Your task to perform on an android device: Open the calendar app, open the side menu, and click the "Day" option Image 0: 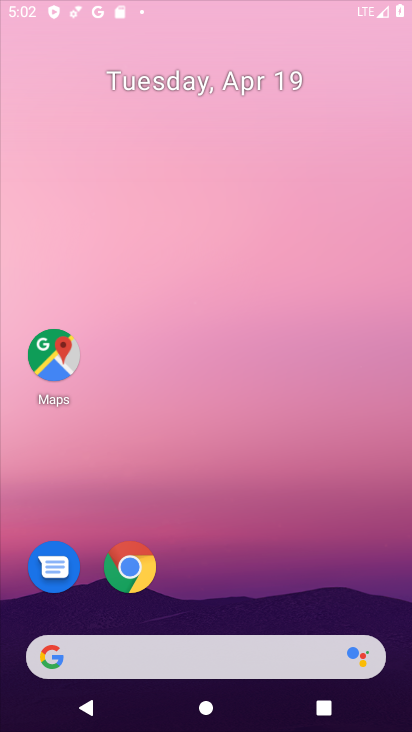
Step 0: click (299, 2)
Your task to perform on an android device: Open the calendar app, open the side menu, and click the "Day" option Image 1: 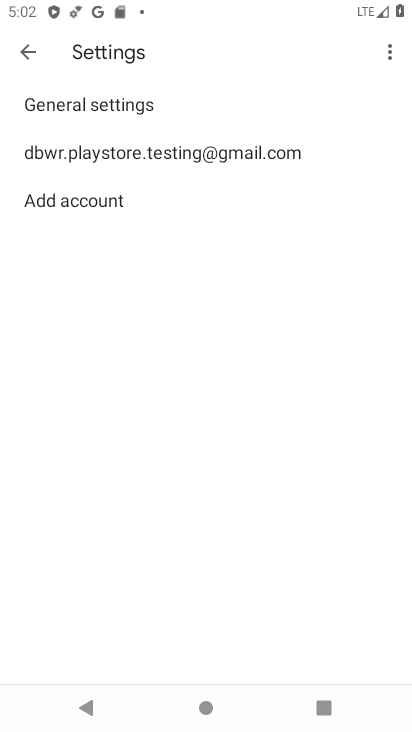
Step 1: press home button
Your task to perform on an android device: Open the calendar app, open the side menu, and click the "Day" option Image 2: 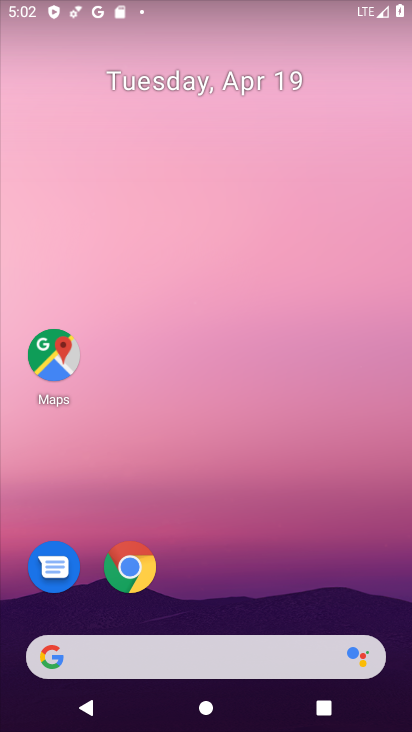
Step 2: drag from (201, 600) to (235, 0)
Your task to perform on an android device: Open the calendar app, open the side menu, and click the "Day" option Image 3: 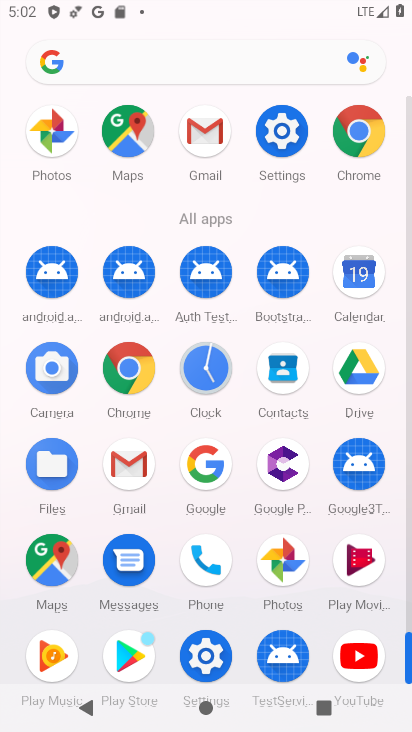
Step 3: click (344, 281)
Your task to perform on an android device: Open the calendar app, open the side menu, and click the "Day" option Image 4: 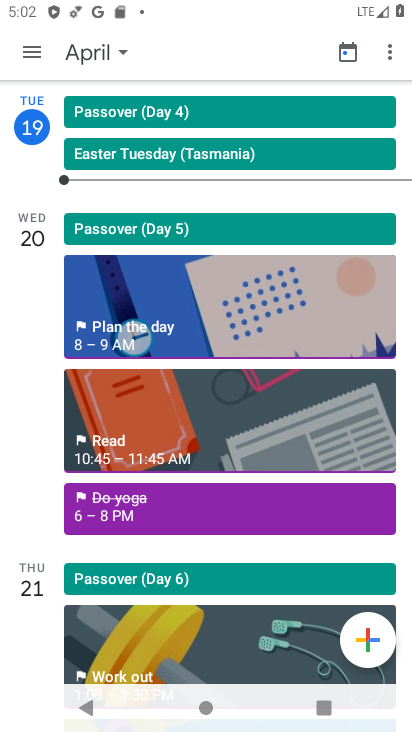
Step 4: click (20, 54)
Your task to perform on an android device: Open the calendar app, open the side menu, and click the "Day" option Image 5: 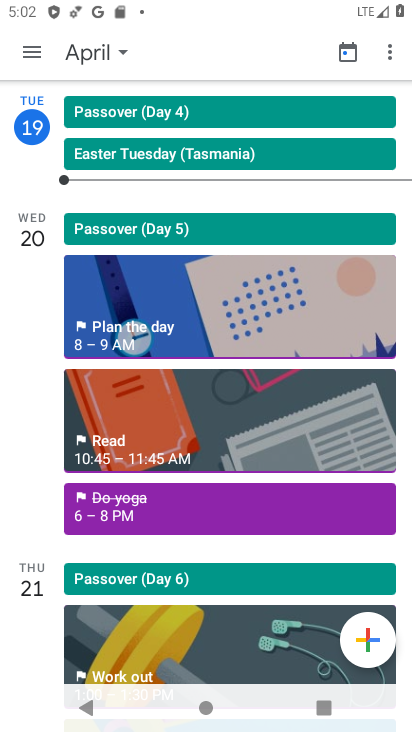
Step 5: click (32, 58)
Your task to perform on an android device: Open the calendar app, open the side menu, and click the "Day" option Image 6: 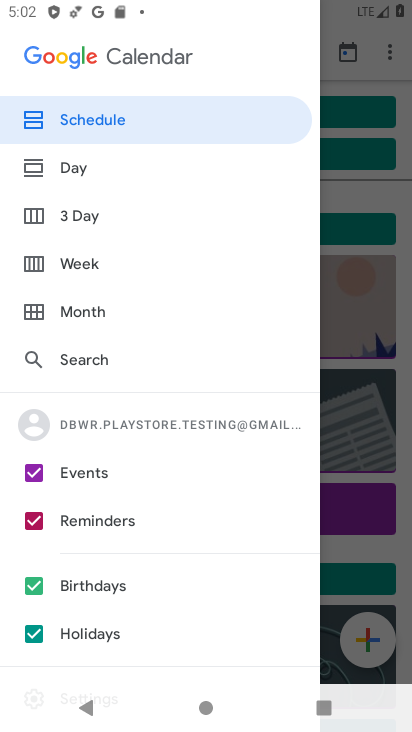
Step 6: click (55, 171)
Your task to perform on an android device: Open the calendar app, open the side menu, and click the "Day" option Image 7: 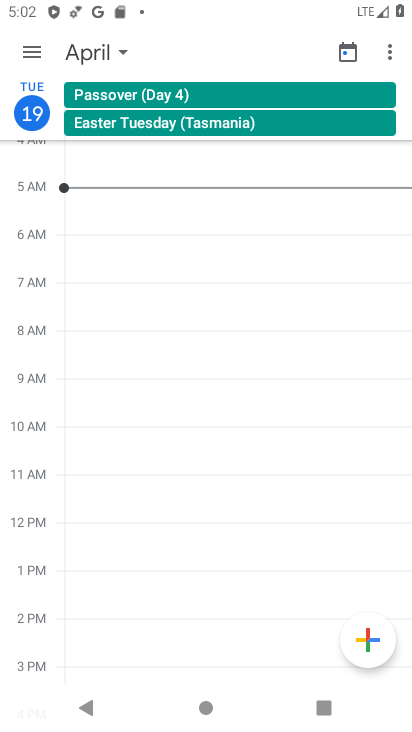
Step 7: task complete